Your task to perform on an android device: turn on the 12-hour format for clock Image 0: 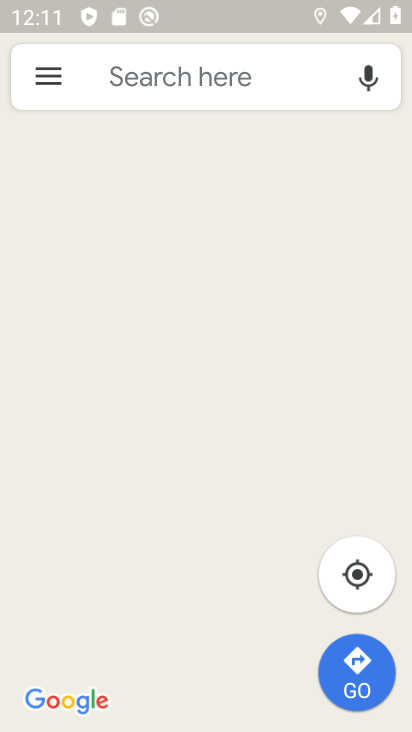
Step 0: drag from (108, 621) to (158, 290)
Your task to perform on an android device: turn on the 12-hour format for clock Image 1: 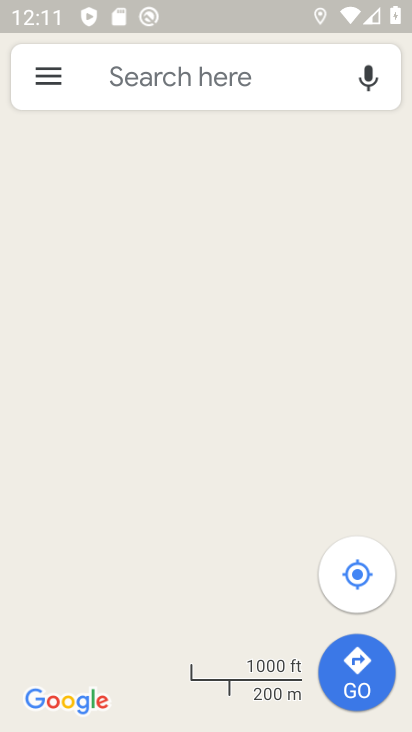
Step 1: press home button
Your task to perform on an android device: turn on the 12-hour format for clock Image 2: 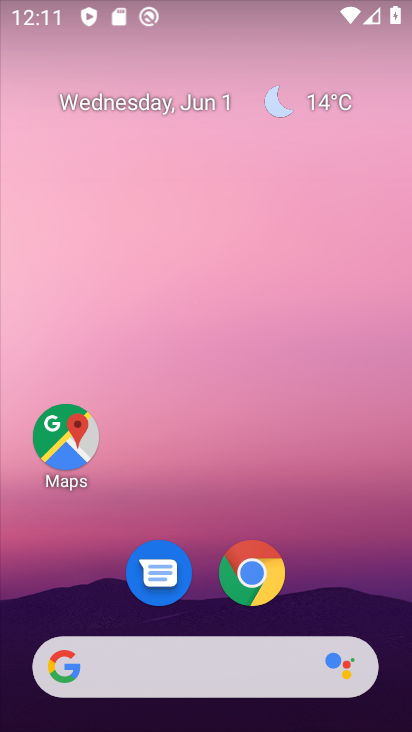
Step 2: drag from (83, 617) to (176, 111)
Your task to perform on an android device: turn on the 12-hour format for clock Image 3: 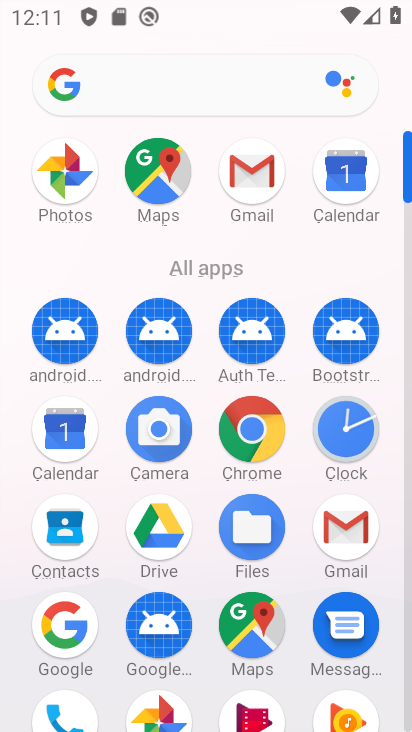
Step 3: click (357, 437)
Your task to perform on an android device: turn on the 12-hour format for clock Image 4: 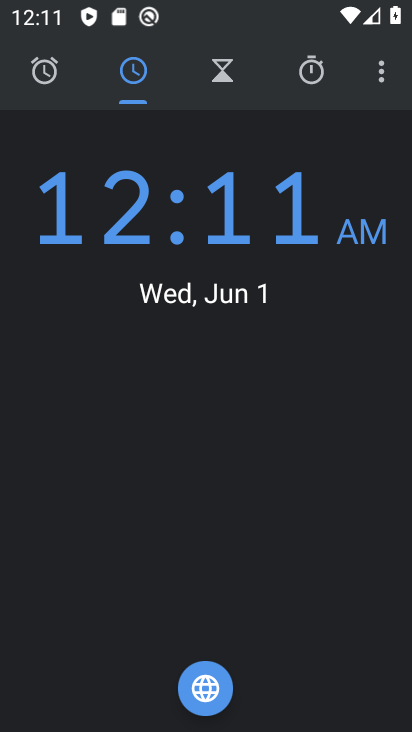
Step 4: click (376, 67)
Your task to perform on an android device: turn on the 12-hour format for clock Image 5: 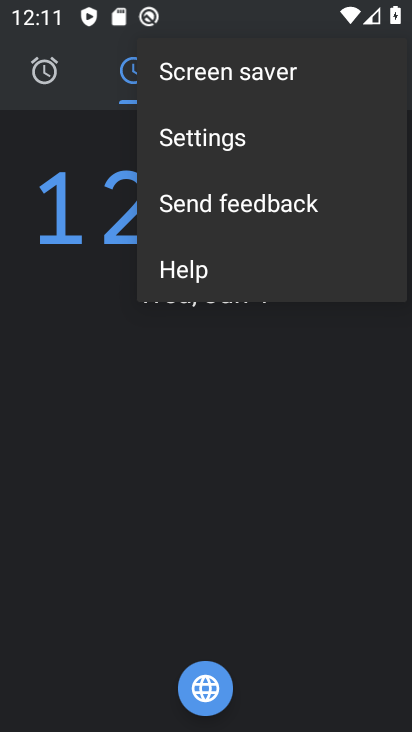
Step 5: click (294, 129)
Your task to perform on an android device: turn on the 12-hour format for clock Image 6: 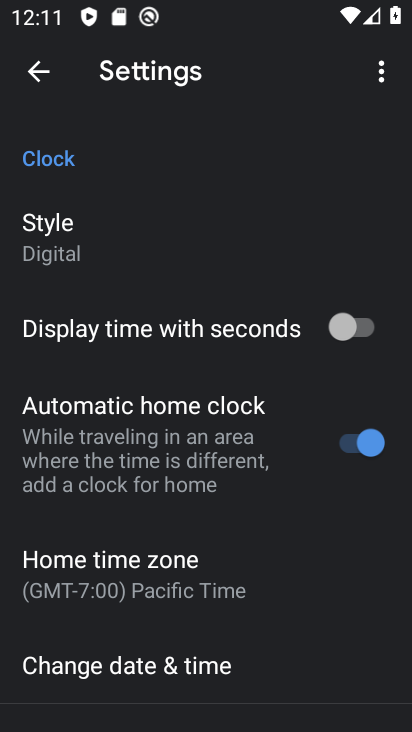
Step 6: click (237, 673)
Your task to perform on an android device: turn on the 12-hour format for clock Image 7: 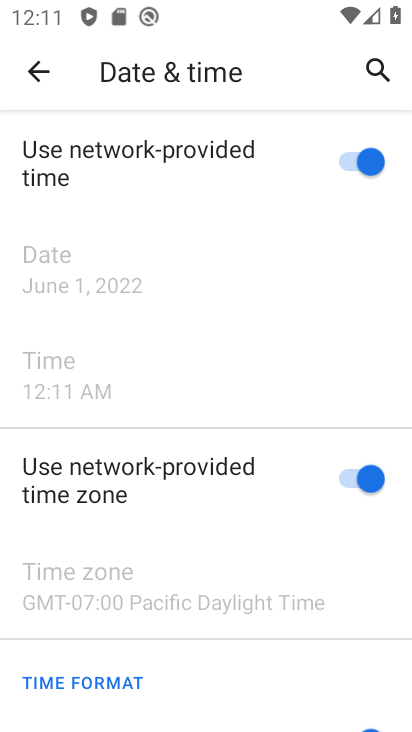
Step 7: task complete